Your task to perform on an android device: turn on translation in the chrome app Image 0: 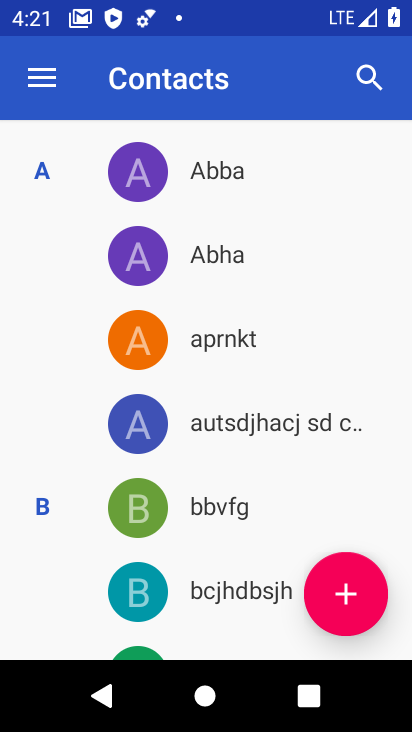
Step 0: press home button
Your task to perform on an android device: turn on translation in the chrome app Image 1: 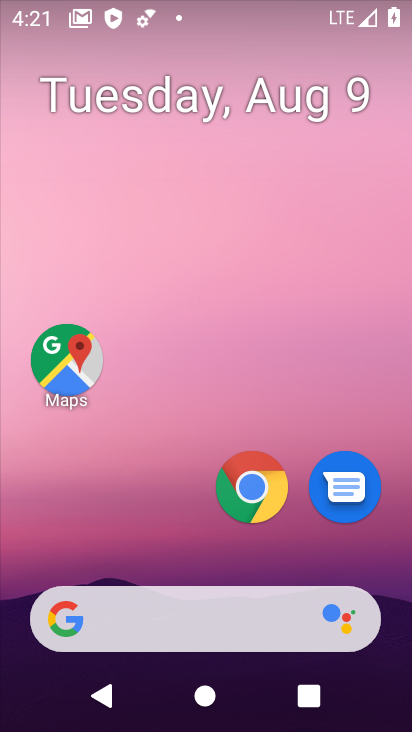
Step 1: click (253, 488)
Your task to perform on an android device: turn on translation in the chrome app Image 2: 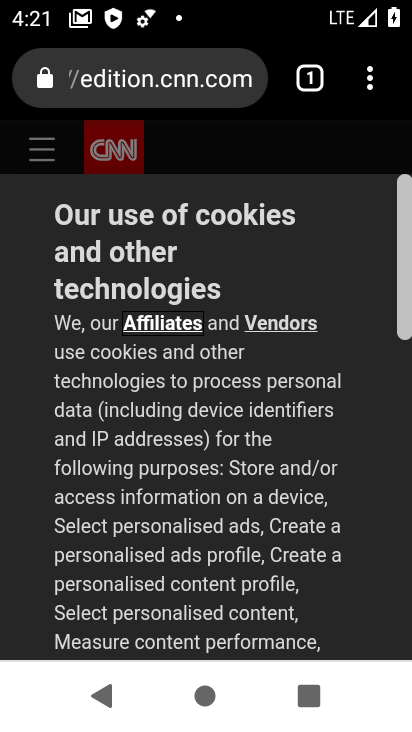
Step 2: click (372, 80)
Your task to perform on an android device: turn on translation in the chrome app Image 3: 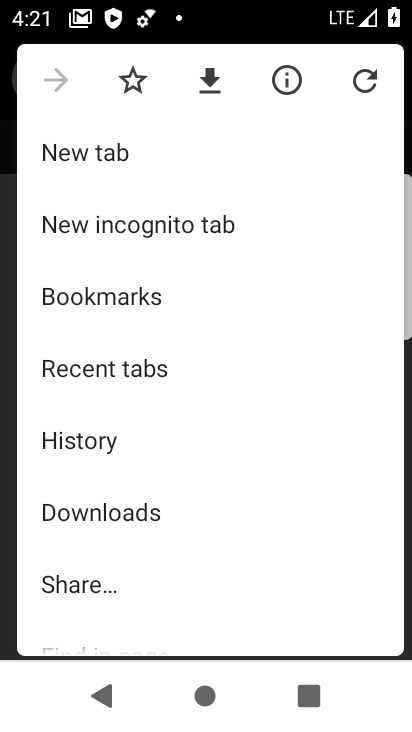
Step 3: drag from (121, 575) to (111, 283)
Your task to perform on an android device: turn on translation in the chrome app Image 4: 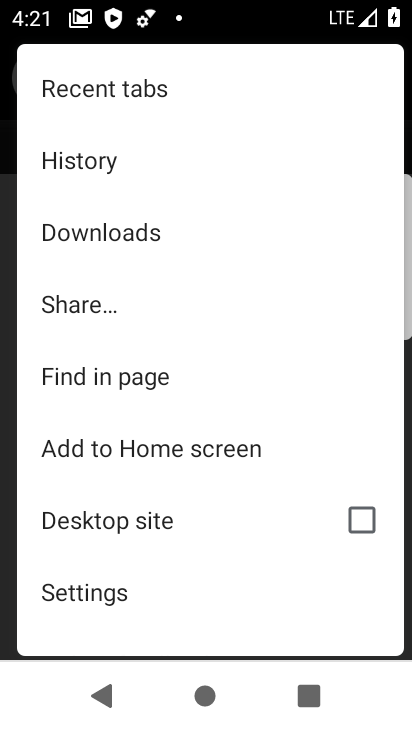
Step 4: click (75, 590)
Your task to perform on an android device: turn on translation in the chrome app Image 5: 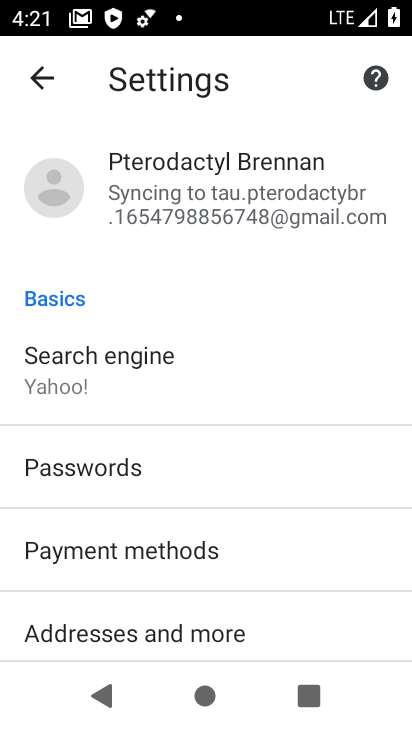
Step 5: drag from (136, 572) to (72, 233)
Your task to perform on an android device: turn on translation in the chrome app Image 6: 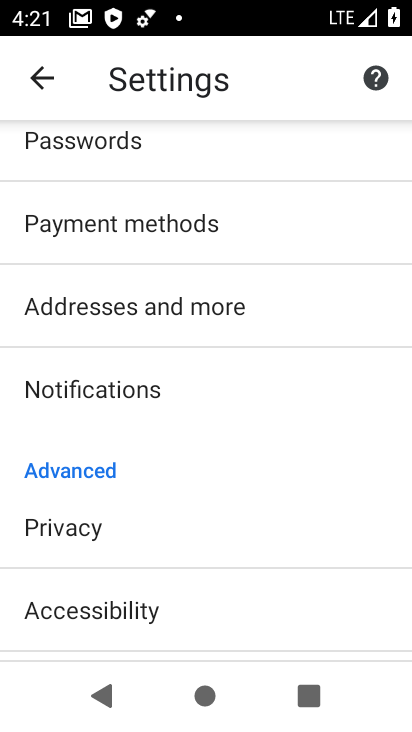
Step 6: drag from (129, 510) to (89, 11)
Your task to perform on an android device: turn on translation in the chrome app Image 7: 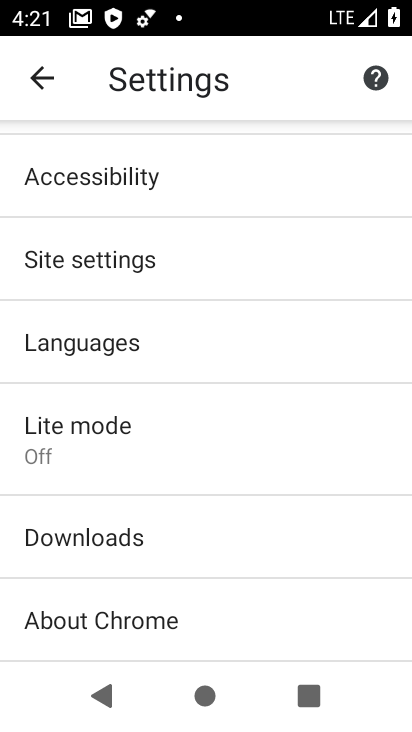
Step 7: click (97, 351)
Your task to perform on an android device: turn on translation in the chrome app Image 8: 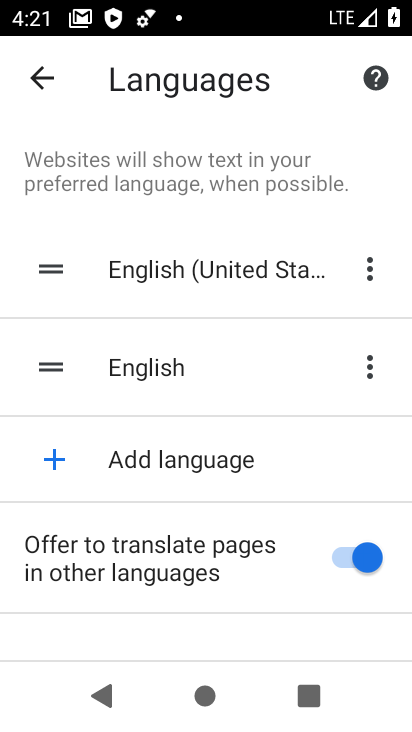
Step 8: click (334, 552)
Your task to perform on an android device: turn on translation in the chrome app Image 9: 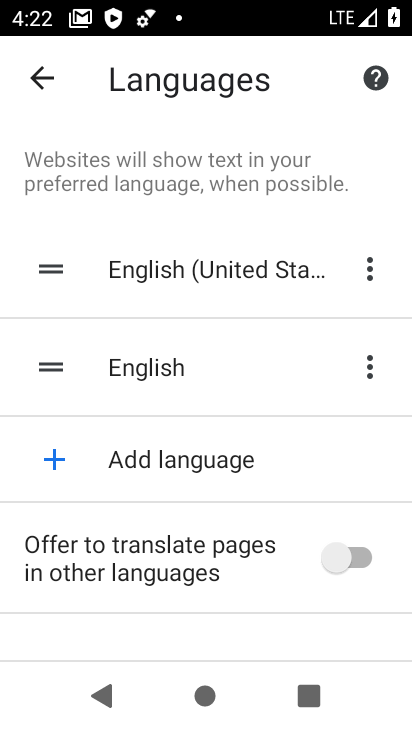
Step 9: task complete